Your task to perform on an android device: Turn on the flashlight Image 0: 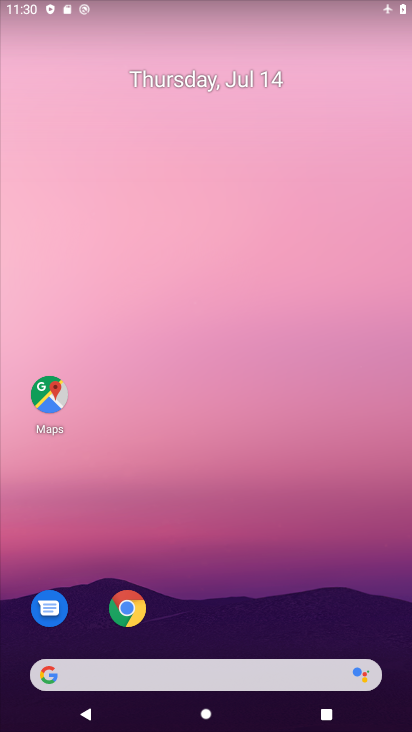
Step 0: drag from (250, 28) to (227, 431)
Your task to perform on an android device: Turn on the flashlight Image 1: 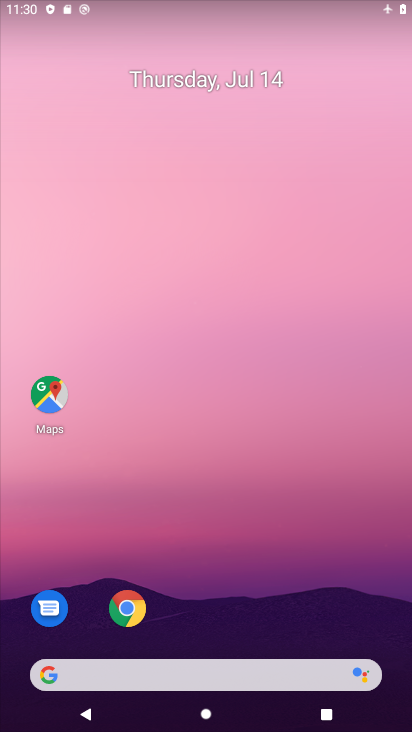
Step 1: task complete